Your task to perform on an android device: Open accessibility settings Image 0: 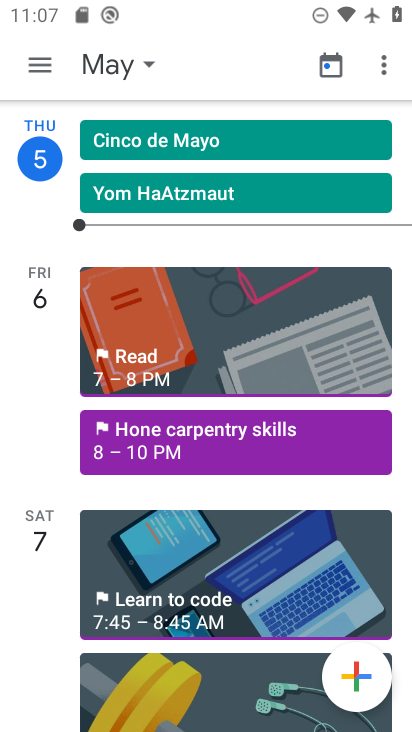
Step 0: press back button
Your task to perform on an android device: Open accessibility settings Image 1: 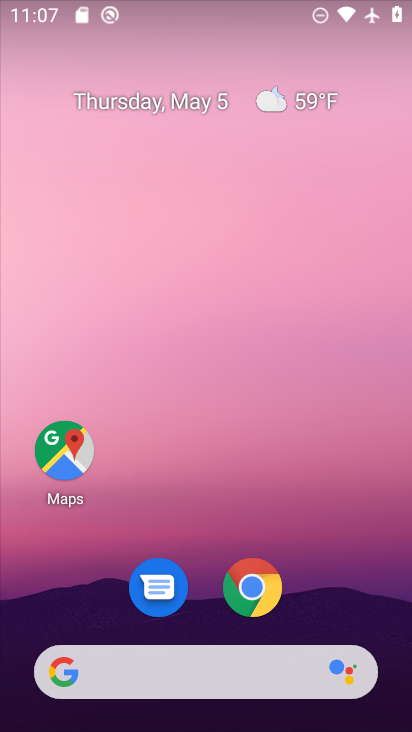
Step 1: drag from (309, 480) to (15, 152)
Your task to perform on an android device: Open accessibility settings Image 2: 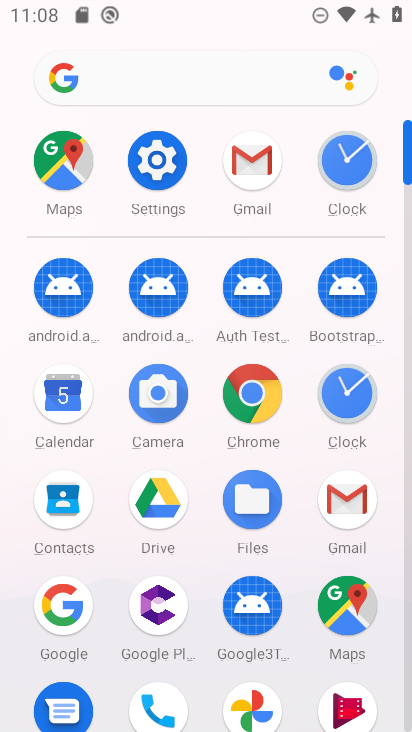
Step 2: drag from (13, 586) to (22, 239)
Your task to perform on an android device: Open accessibility settings Image 3: 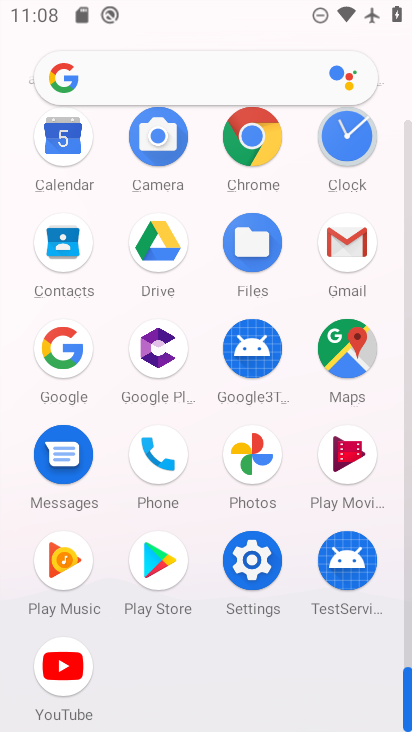
Step 3: click (250, 555)
Your task to perform on an android device: Open accessibility settings Image 4: 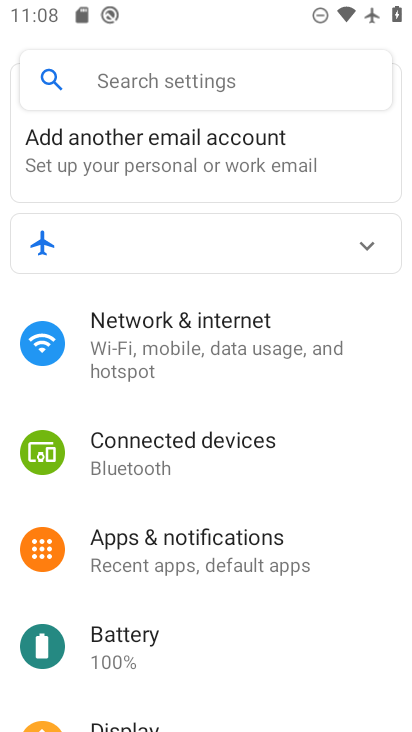
Step 4: drag from (297, 674) to (279, 140)
Your task to perform on an android device: Open accessibility settings Image 5: 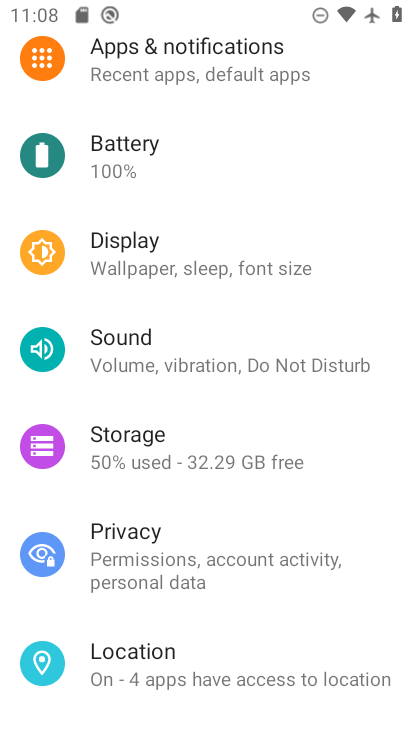
Step 5: drag from (281, 544) to (234, 78)
Your task to perform on an android device: Open accessibility settings Image 6: 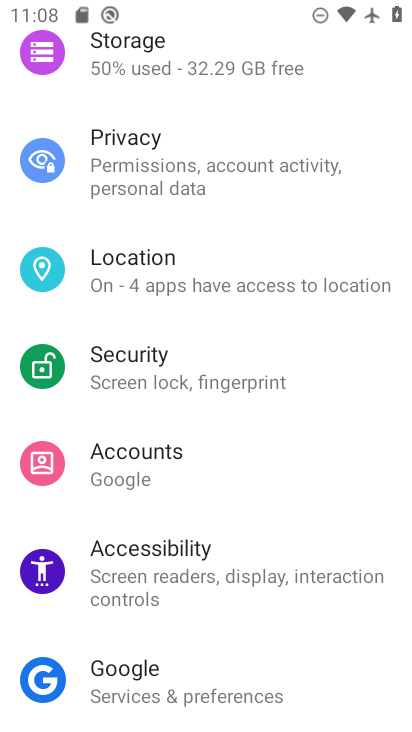
Step 6: click (258, 552)
Your task to perform on an android device: Open accessibility settings Image 7: 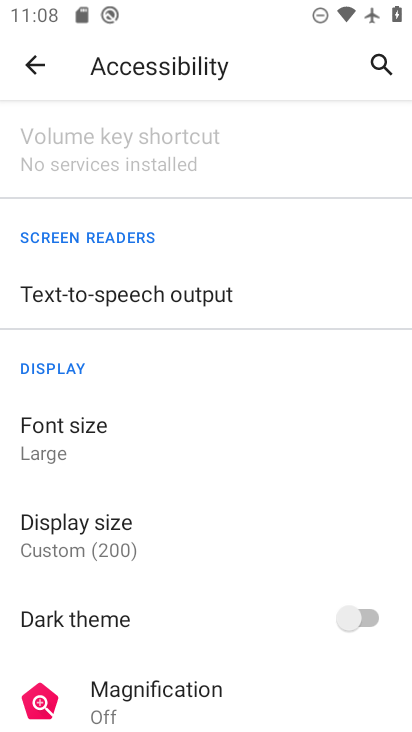
Step 7: task complete